Your task to perform on an android device: turn on sleep mode Image 0: 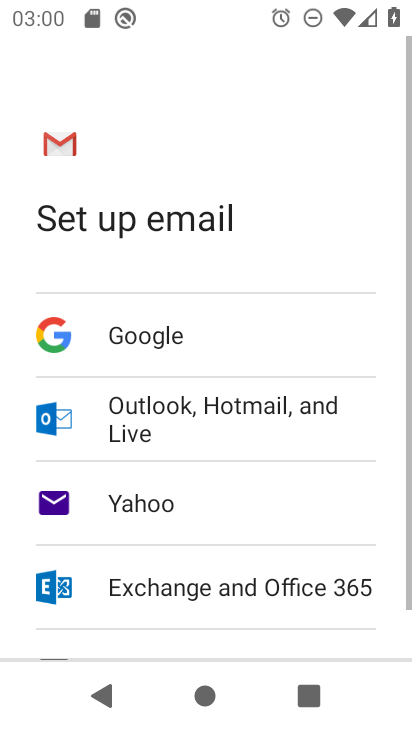
Step 0: press home button
Your task to perform on an android device: turn on sleep mode Image 1: 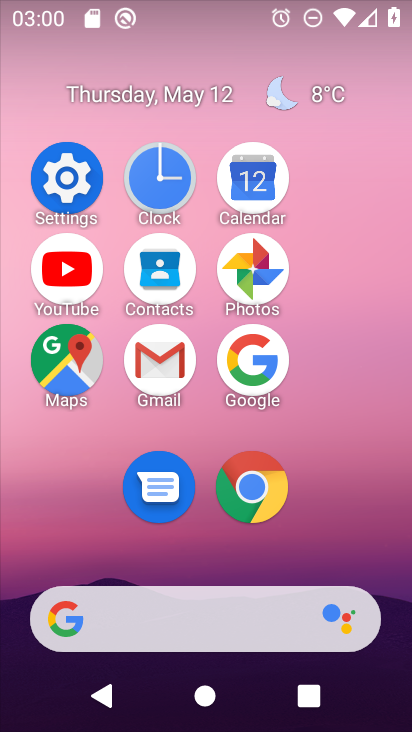
Step 1: click (93, 173)
Your task to perform on an android device: turn on sleep mode Image 2: 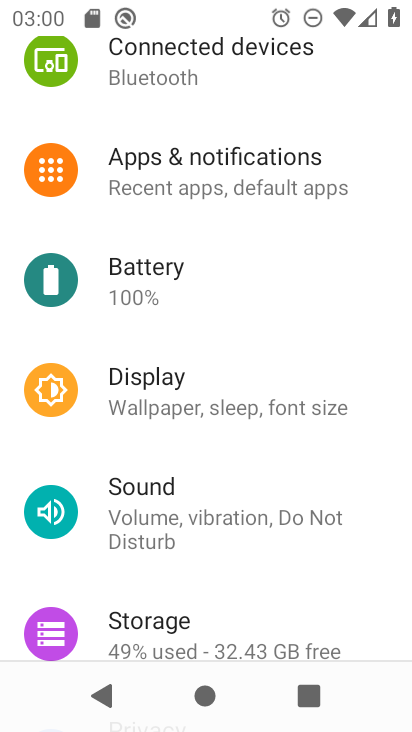
Step 2: click (218, 393)
Your task to perform on an android device: turn on sleep mode Image 3: 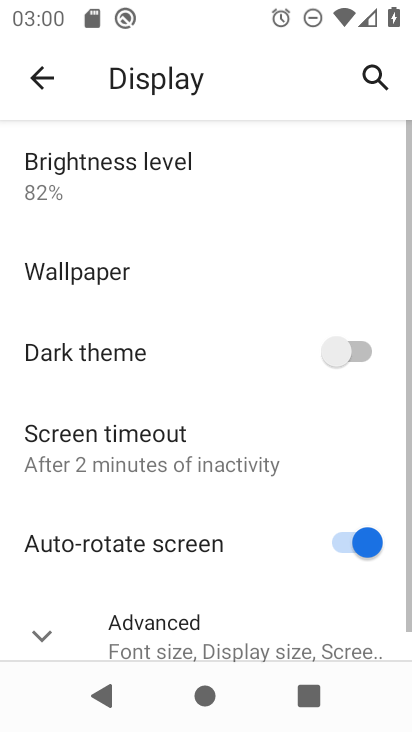
Step 3: click (216, 455)
Your task to perform on an android device: turn on sleep mode Image 4: 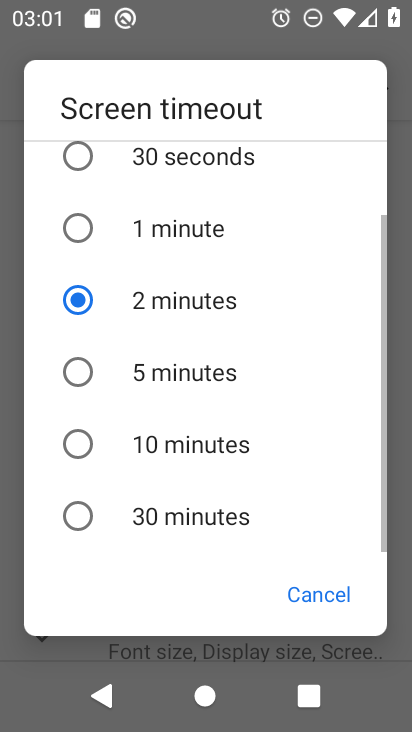
Step 4: task complete